Your task to perform on an android device: Open Google Image 0: 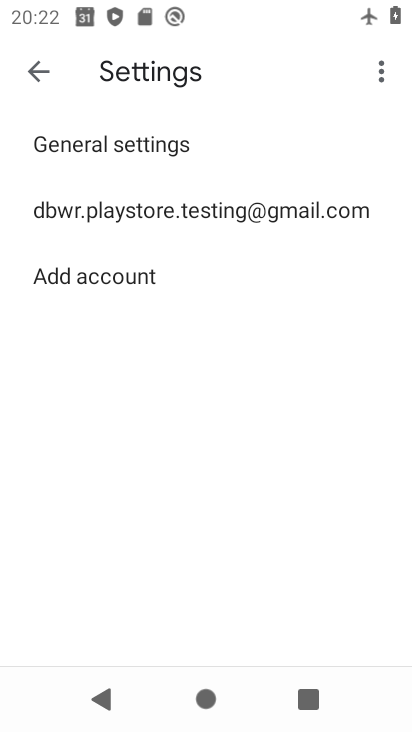
Step 0: press home button
Your task to perform on an android device: Open Google Image 1: 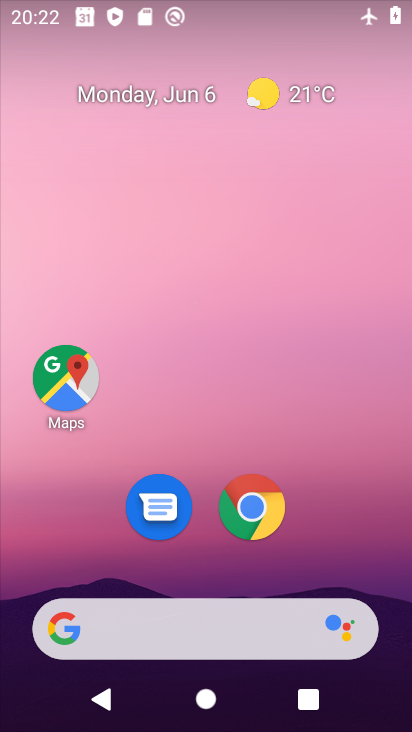
Step 1: drag from (191, 578) to (79, 94)
Your task to perform on an android device: Open Google Image 2: 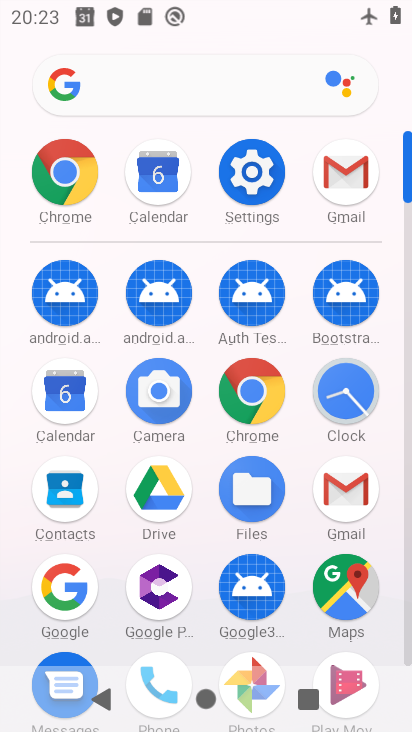
Step 2: drag from (222, 630) to (199, 486)
Your task to perform on an android device: Open Google Image 3: 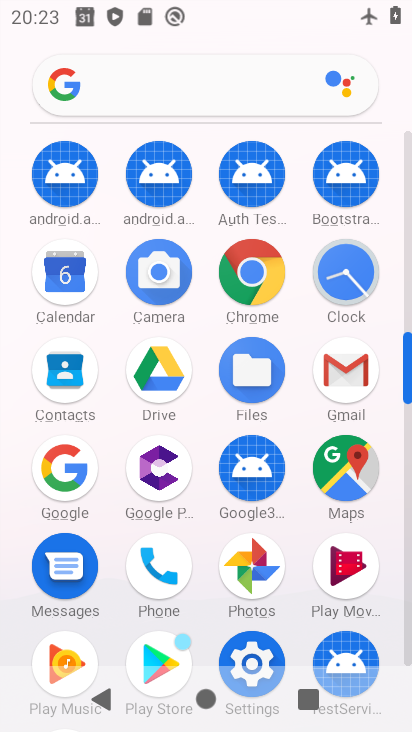
Step 3: click (68, 492)
Your task to perform on an android device: Open Google Image 4: 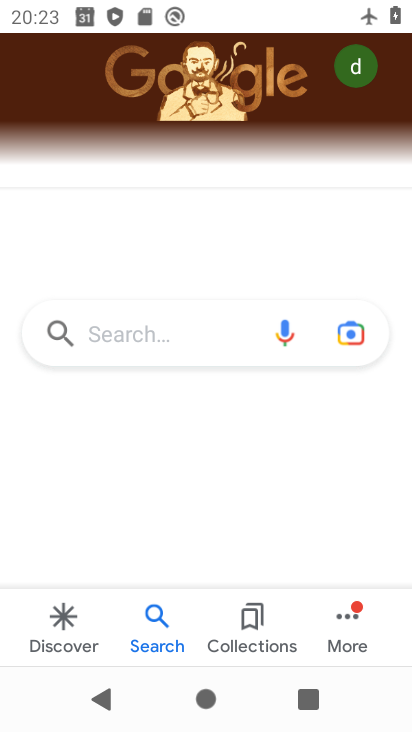
Step 4: task complete